Your task to perform on an android device: turn off smart reply in the gmail app Image 0: 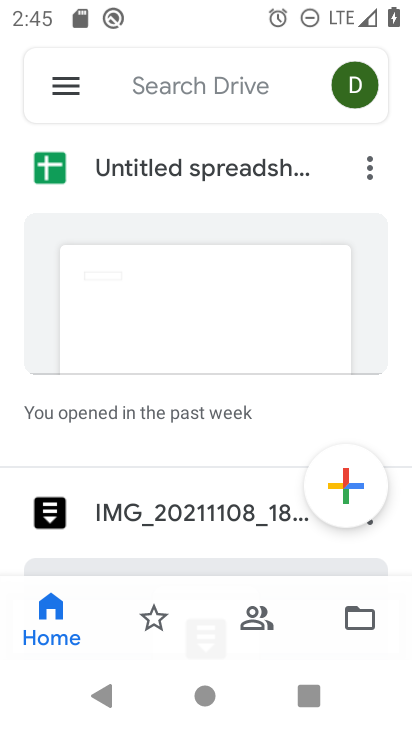
Step 0: press home button
Your task to perform on an android device: turn off smart reply in the gmail app Image 1: 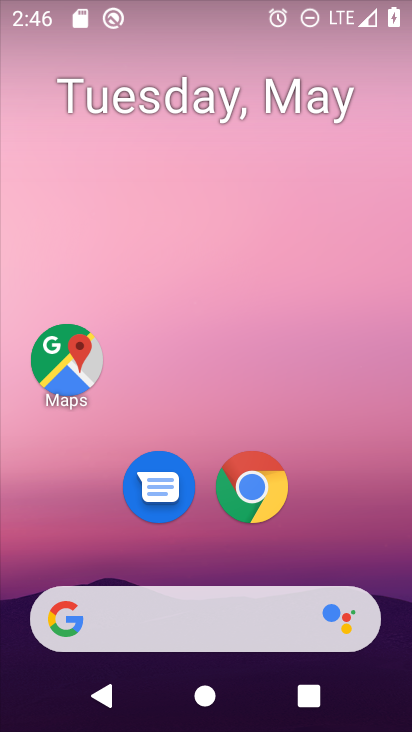
Step 1: drag from (34, 512) to (191, 229)
Your task to perform on an android device: turn off smart reply in the gmail app Image 2: 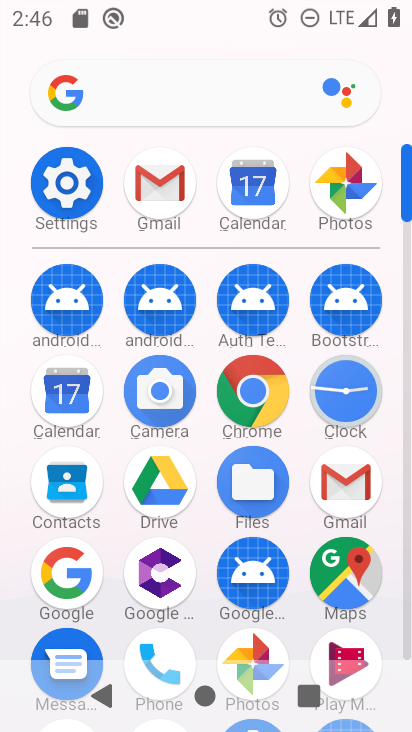
Step 2: click (331, 466)
Your task to perform on an android device: turn off smart reply in the gmail app Image 3: 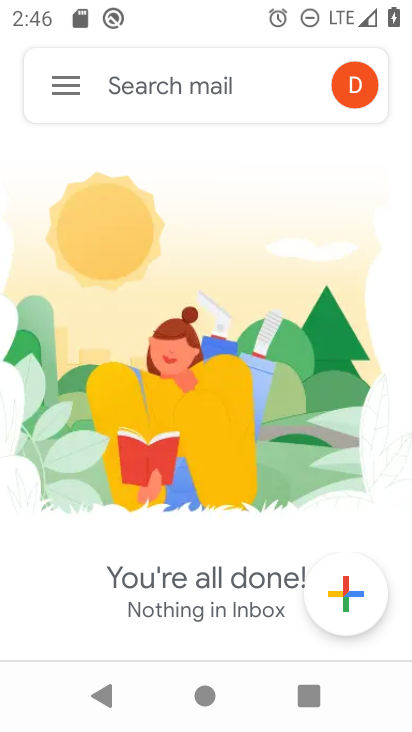
Step 3: click (53, 92)
Your task to perform on an android device: turn off smart reply in the gmail app Image 4: 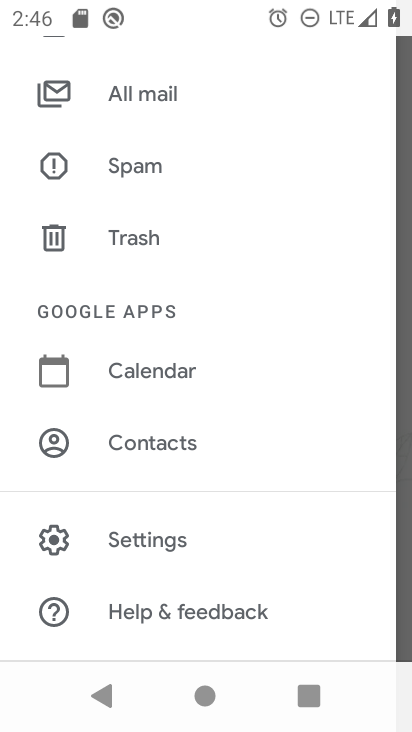
Step 4: click (129, 540)
Your task to perform on an android device: turn off smart reply in the gmail app Image 5: 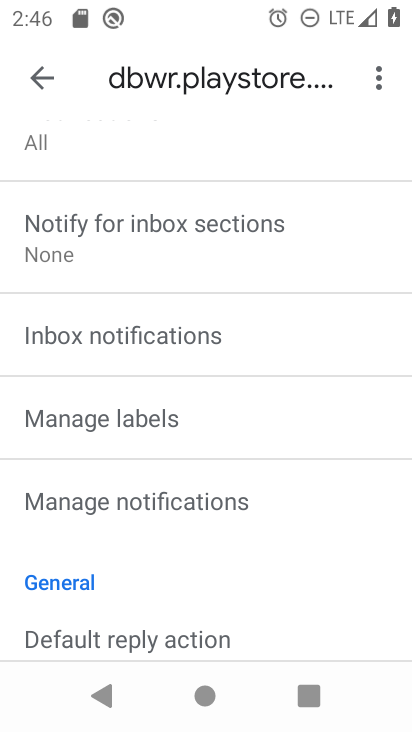
Step 5: task complete